Your task to perform on an android device: Show me popular videos on Youtube Image 0: 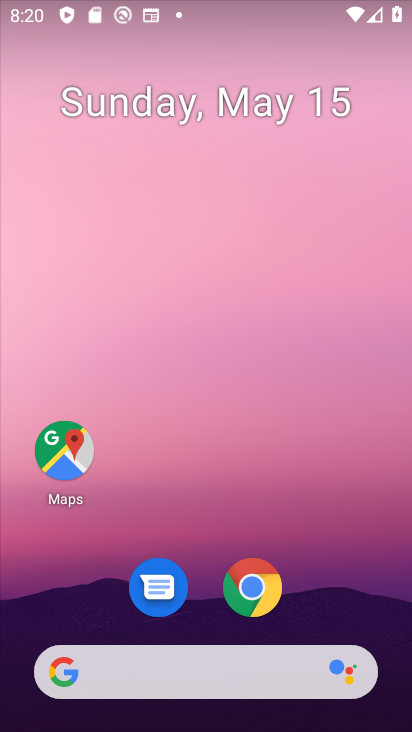
Step 0: drag from (372, 602) to (309, 96)
Your task to perform on an android device: Show me popular videos on Youtube Image 1: 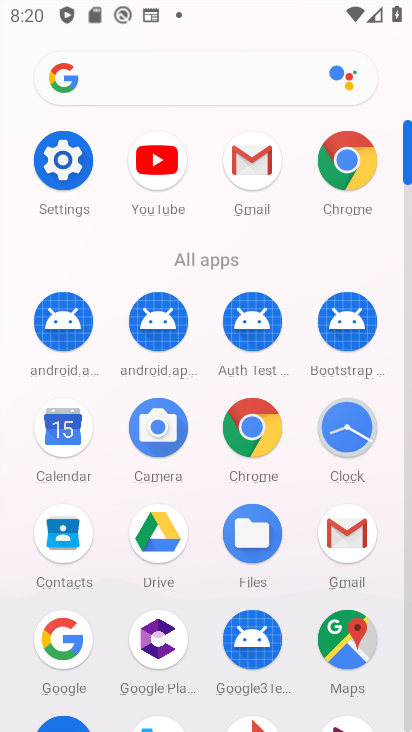
Step 1: drag from (282, 638) to (264, 53)
Your task to perform on an android device: Show me popular videos on Youtube Image 2: 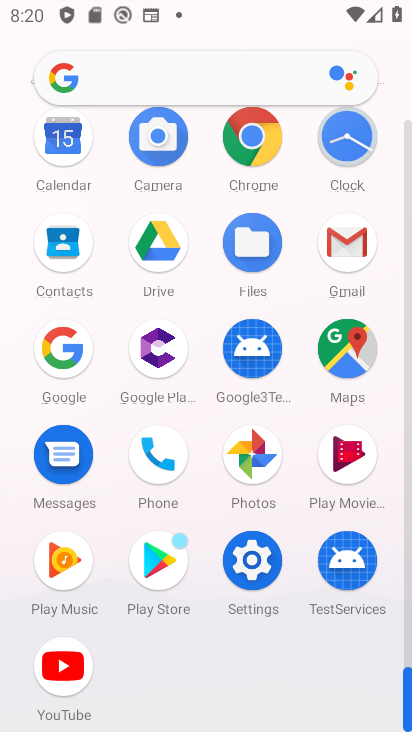
Step 2: click (70, 667)
Your task to perform on an android device: Show me popular videos on Youtube Image 3: 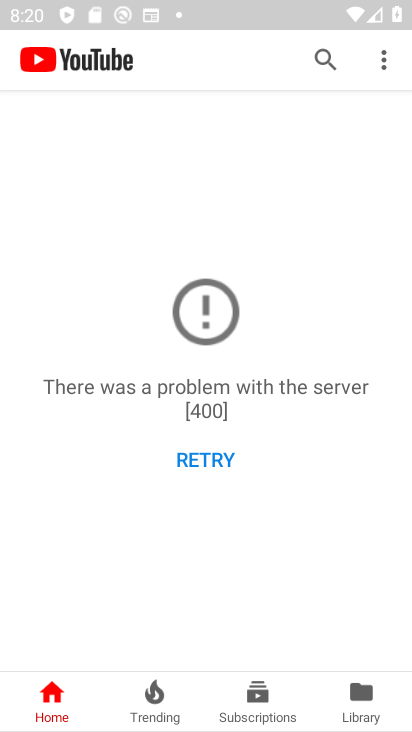
Step 3: task complete